Your task to perform on an android device: Open calendar and show me the fourth week of next month Image 0: 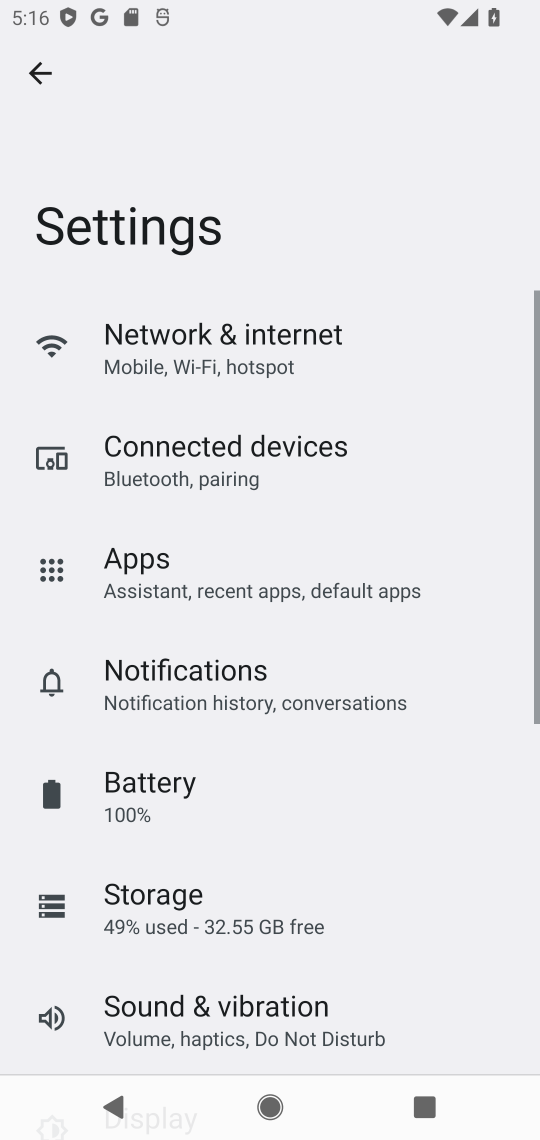
Step 0: press home button
Your task to perform on an android device: Open calendar and show me the fourth week of next month Image 1: 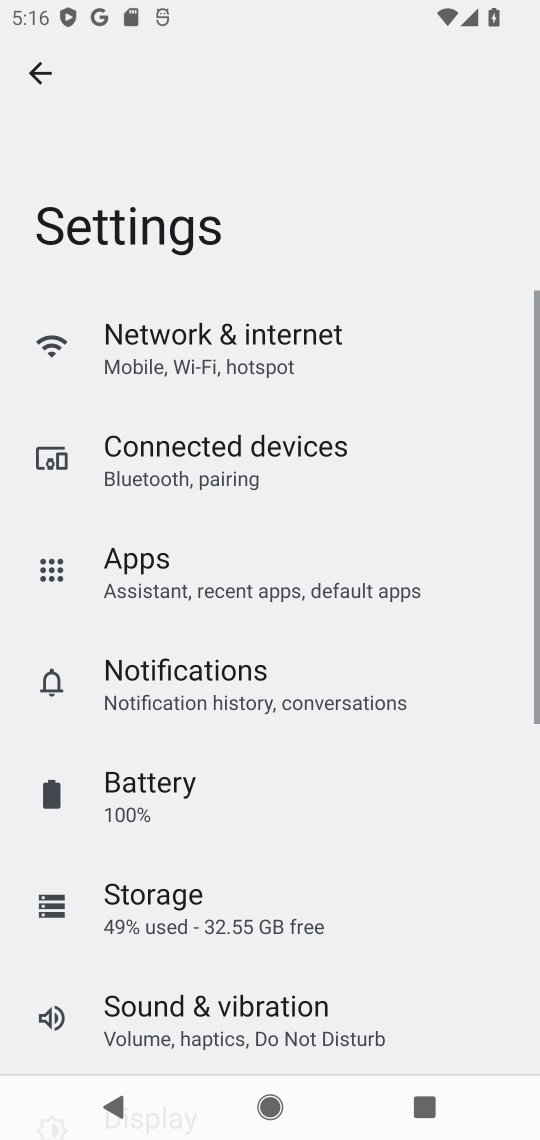
Step 1: press home button
Your task to perform on an android device: Open calendar and show me the fourth week of next month Image 2: 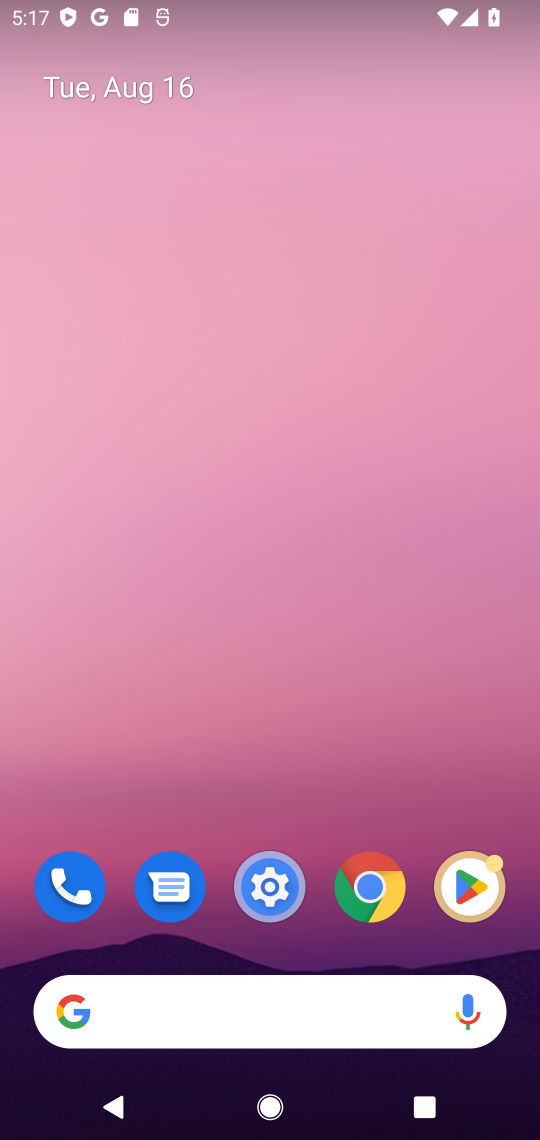
Step 2: drag from (356, 798) to (395, 92)
Your task to perform on an android device: Open calendar and show me the fourth week of next month Image 3: 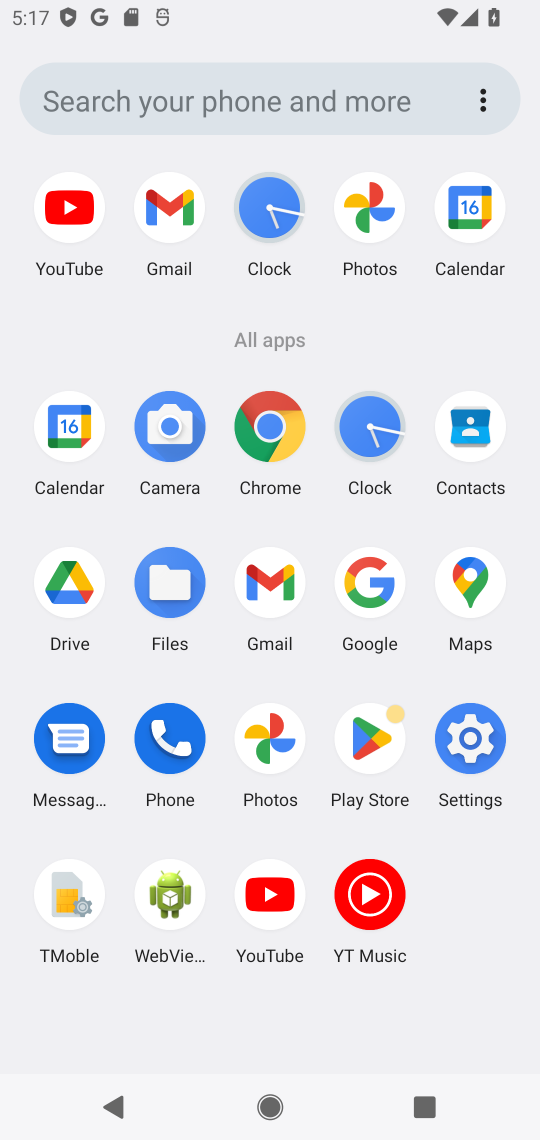
Step 3: click (59, 431)
Your task to perform on an android device: Open calendar and show me the fourth week of next month Image 4: 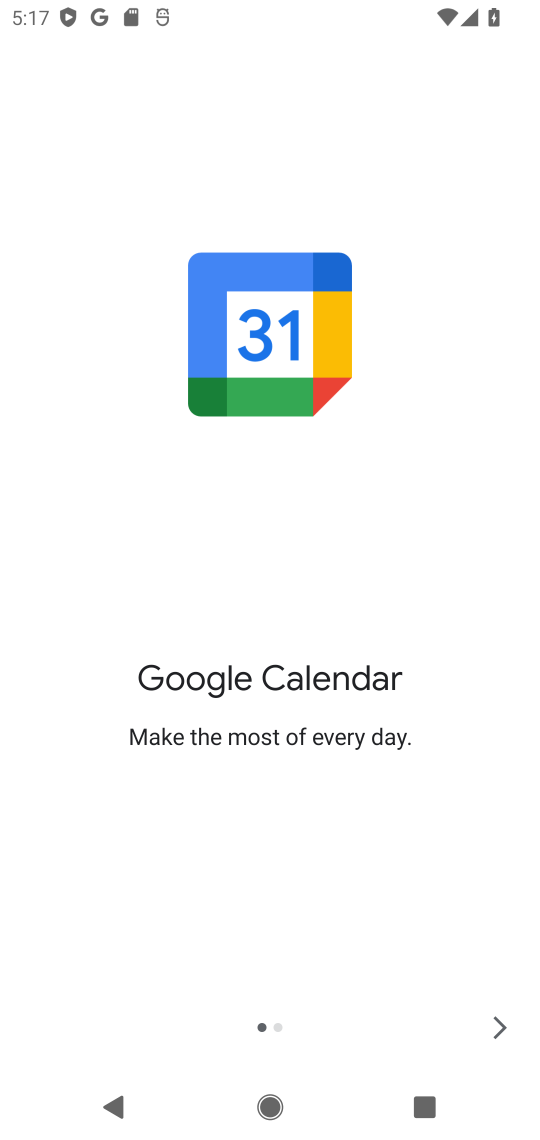
Step 4: click (499, 1029)
Your task to perform on an android device: Open calendar and show me the fourth week of next month Image 5: 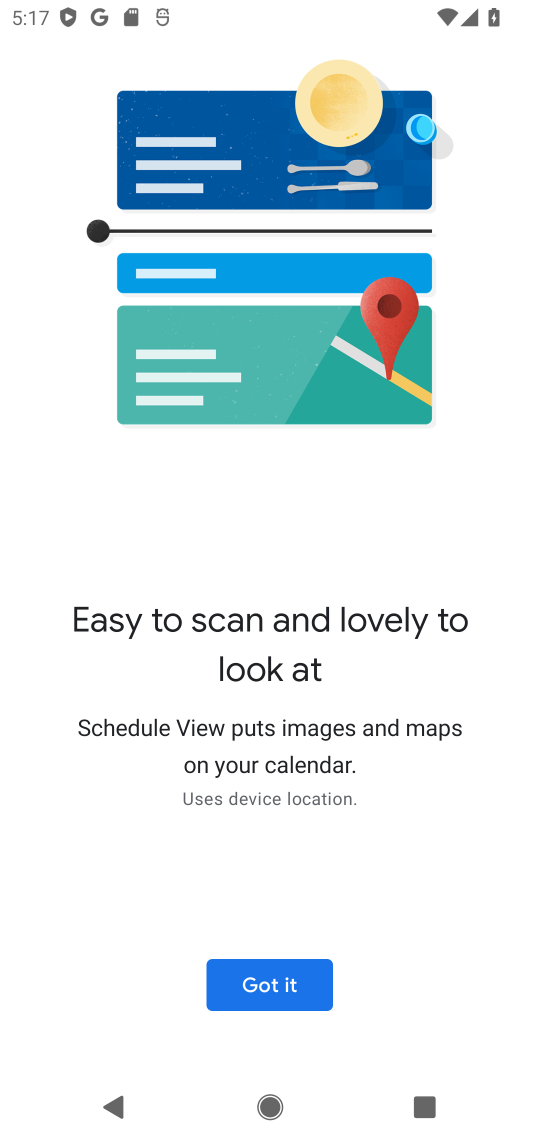
Step 5: click (227, 981)
Your task to perform on an android device: Open calendar and show me the fourth week of next month Image 6: 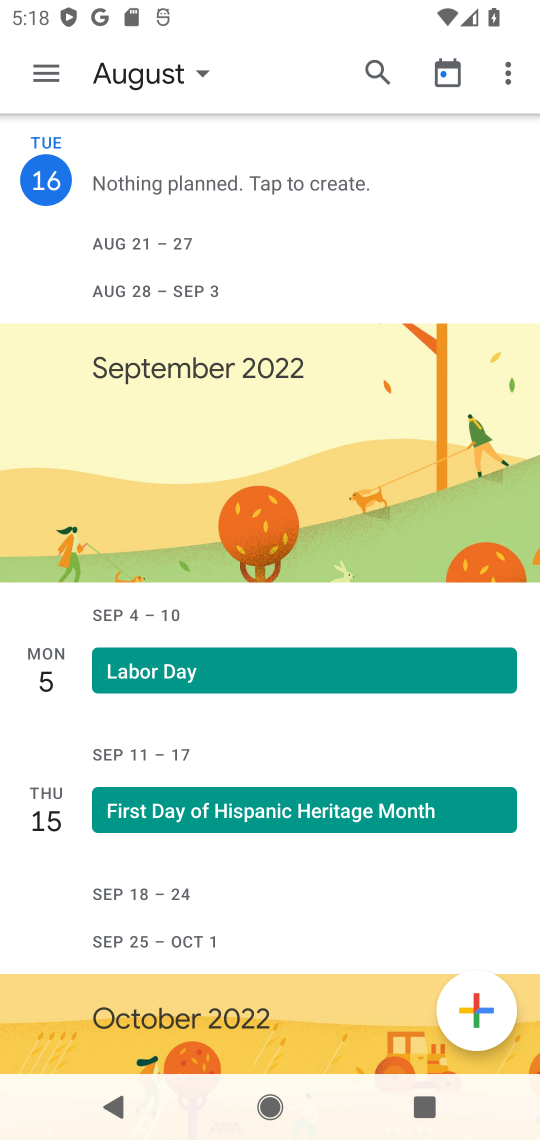
Step 6: click (140, 66)
Your task to perform on an android device: Open calendar and show me the fourth week of next month Image 7: 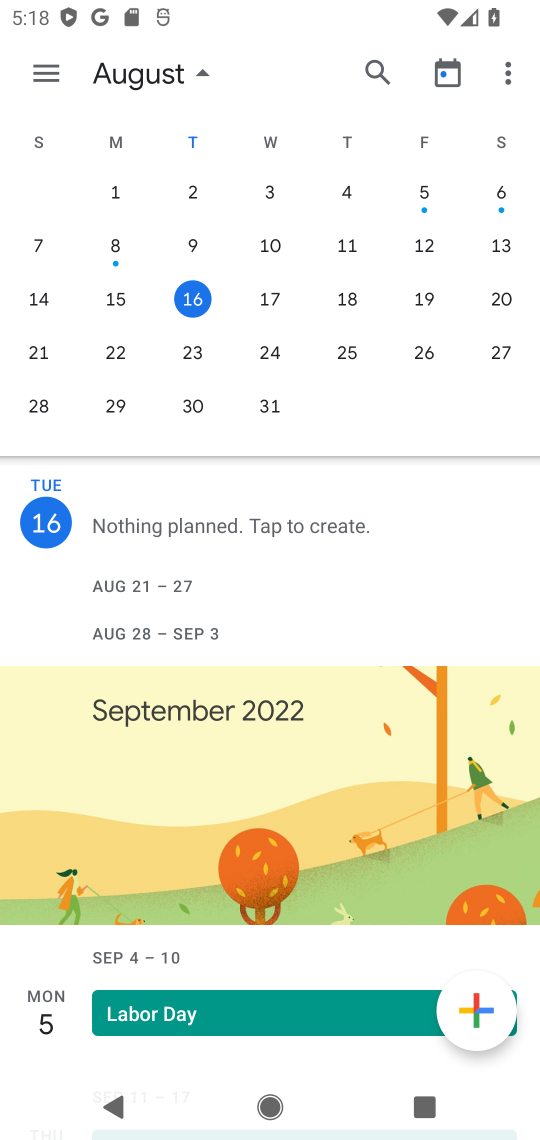
Step 7: drag from (478, 320) to (17, 320)
Your task to perform on an android device: Open calendar and show me the fourth week of next month Image 8: 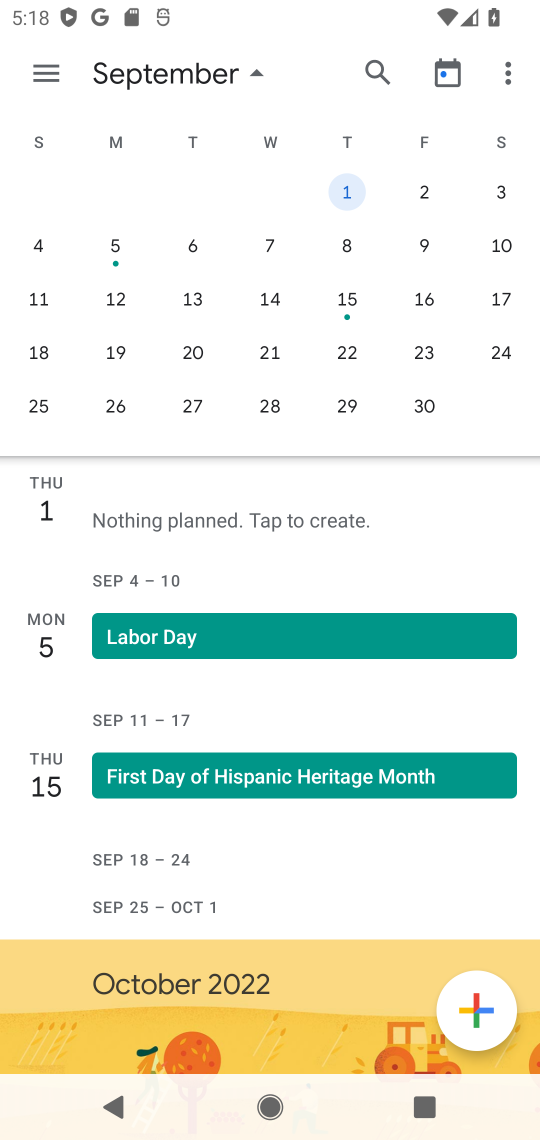
Step 8: click (113, 412)
Your task to perform on an android device: Open calendar and show me the fourth week of next month Image 9: 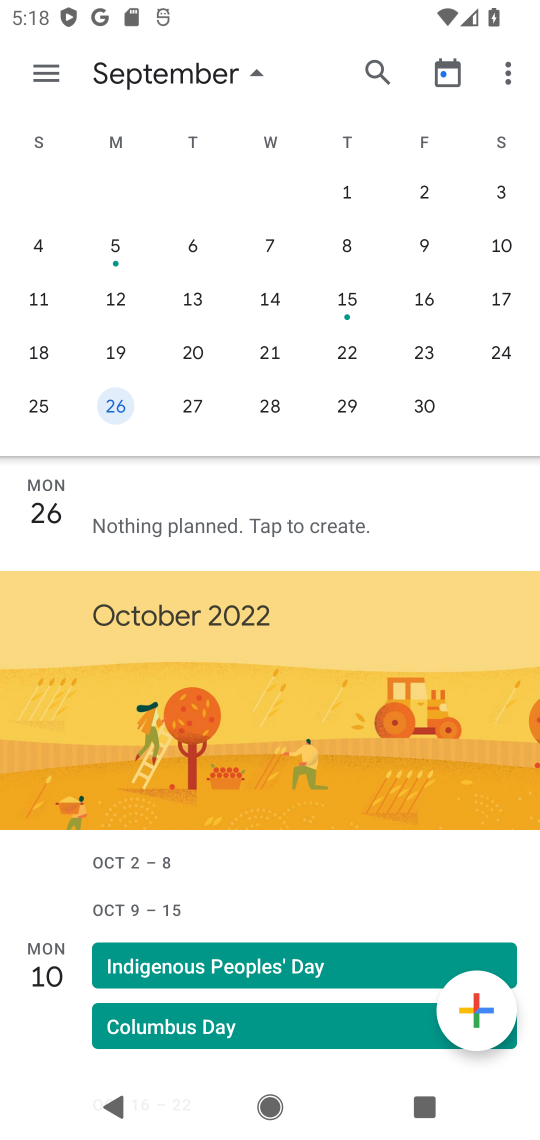
Step 9: click (47, 63)
Your task to perform on an android device: Open calendar and show me the fourth week of next month Image 10: 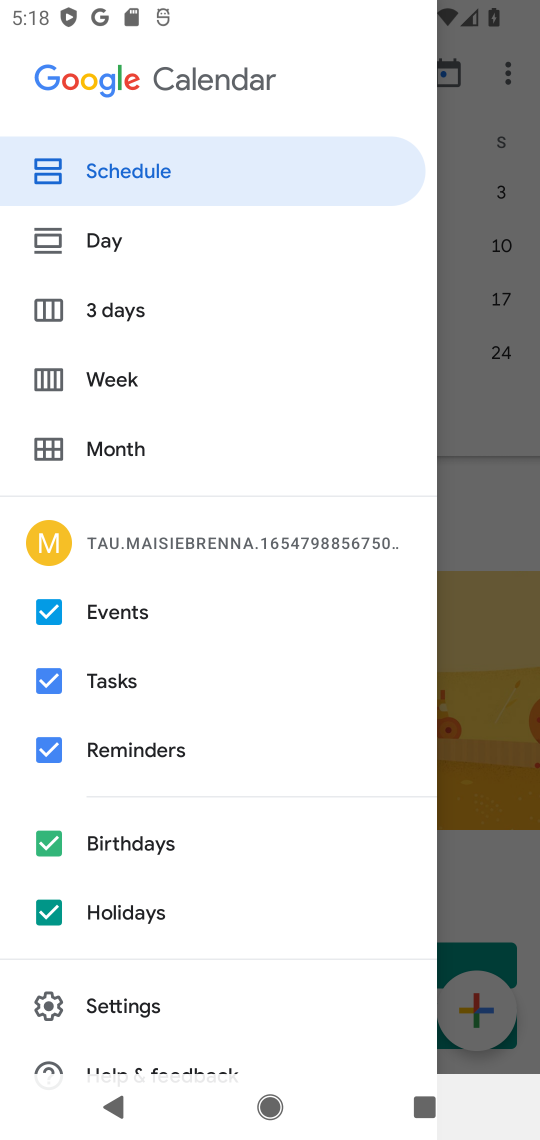
Step 10: click (95, 390)
Your task to perform on an android device: Open calendar and show me the fourth week of next month Image 11: 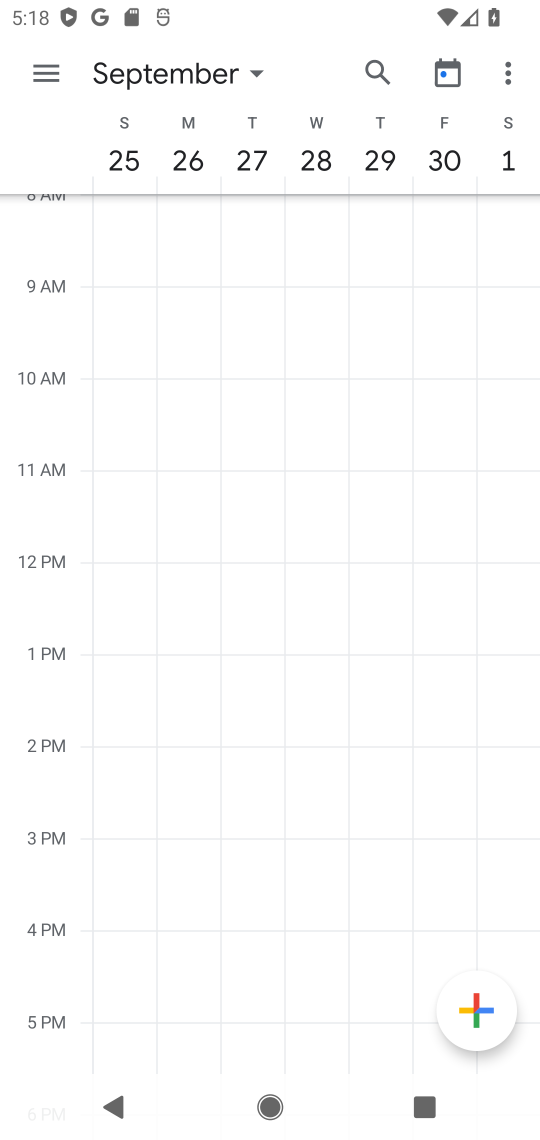
Step 11: task complete